Your task to perform on an android device: Search for seafood restaurants on Google Maps Image 0: 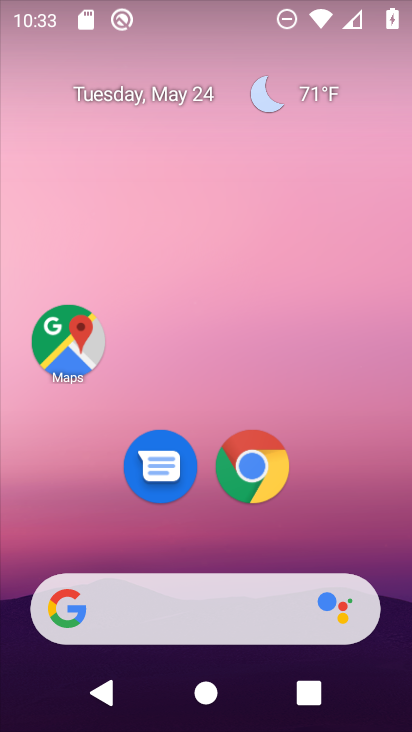
Step 0: drag from (195, 548) to (253, 14)
Your task to perform on an android device: Search for seafood restaurants on Google Maps Image 1: 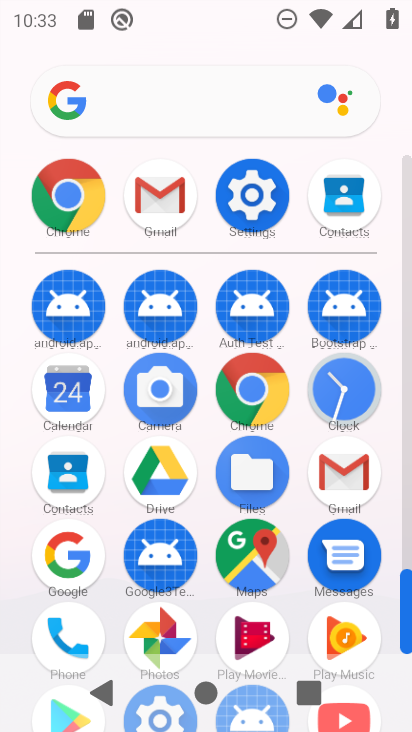
Step 1: click (230, 552)
Your task to perform on an android device: Search for seafood restaurants on Google Maps Image 2: 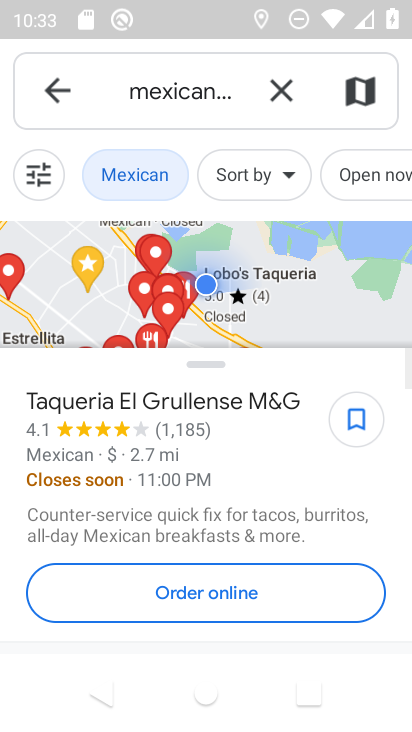
Step 2: click (275, 85)
Your task to perform on an android device: Search for seafood restaurants on Google Maps Image 3: 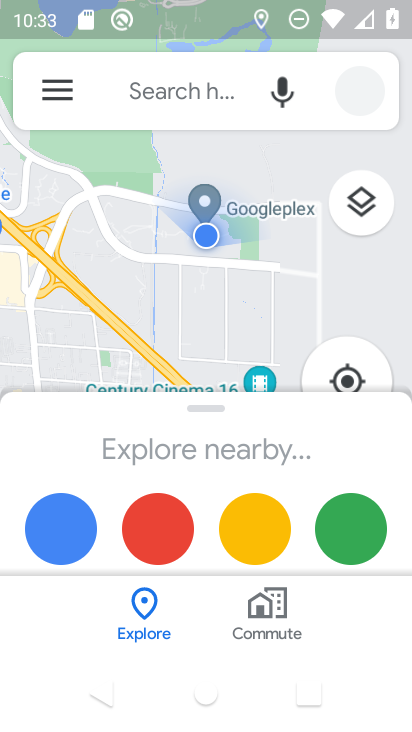
Step 3: click (186, 80)
Your task to perform on an android device: Search for seafood restaurants on Google Maps Image 4: 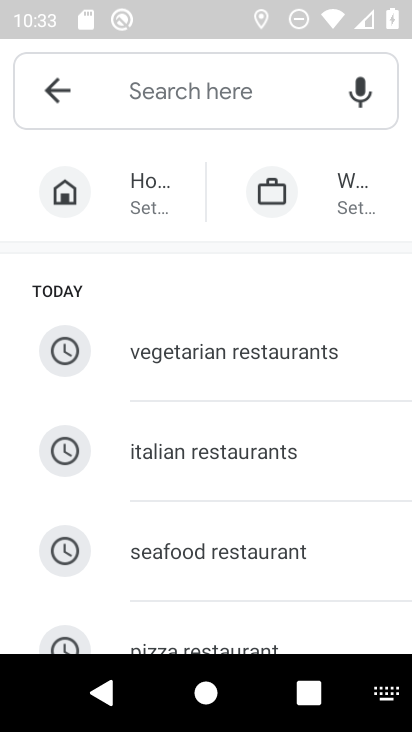
Step 4: type "seafood restaurants"
Your task to perform on an android device: Search for seafood restaurants on Google Maps Image 5: 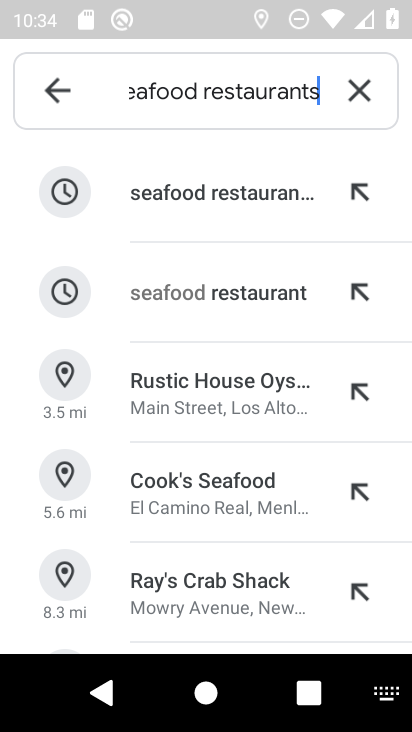
Step 5: click (251, 211)
Your task to perform on an android device: Search for seafood restaurants on Google Maps Image 6: 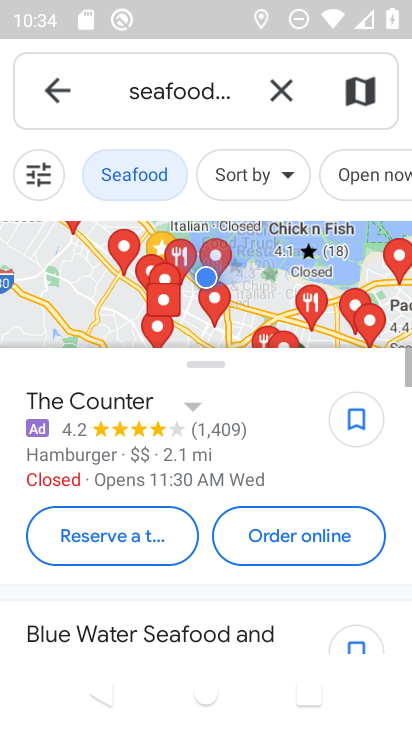
Step 6: task complete